Your task to perform on an android device: How much does a 3 bedroom apartment rent for in San Francisco? Image 0: 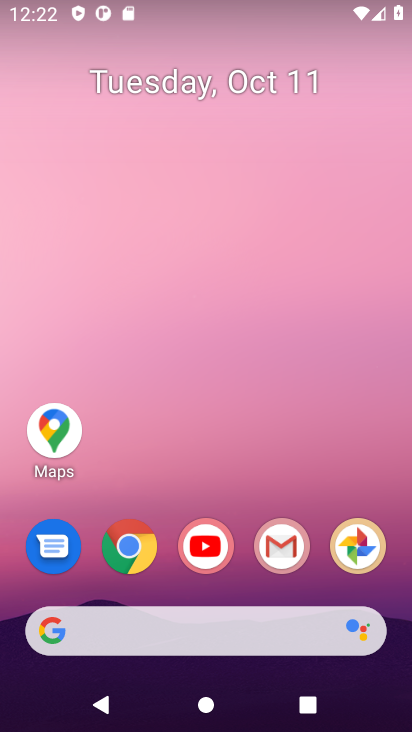
Step 0: click (129, 542)
Your task to perform on an android device: How much does a 3 bedroom apartment rent for in San Francisco? Image 1: 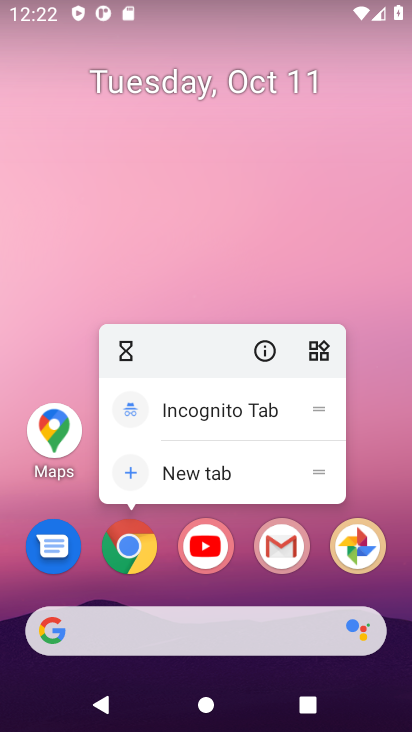
Step 1: click (124, 554)
Your task to perform on an android device: How much does a 3 bedroom apartment rent for in San Francisco? Image 2: 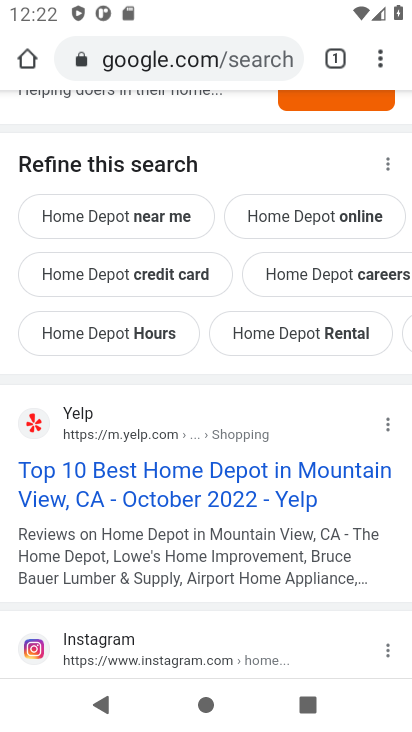
Step 2: click (220, 57)
Your task to perform on an android device: How much does a 3 bedroom apartment rent for in San Francisco? Image 3: 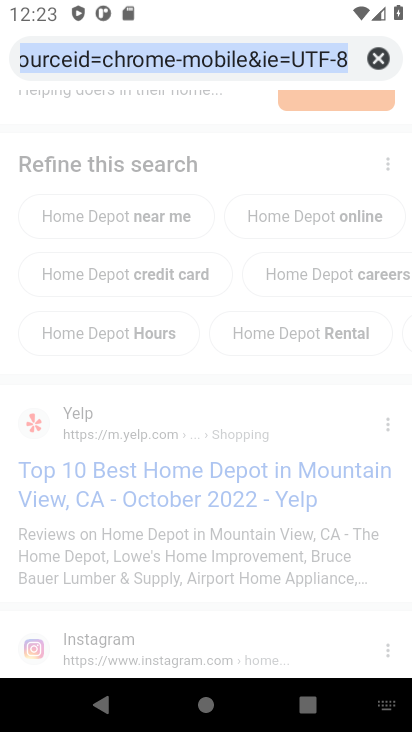
Step 3: type "3 bedroom apartment rent in San Francisco"
Your task to perform on an android device: How much does a 3 bedroom apartment rent for in San Francisco? Image 4: 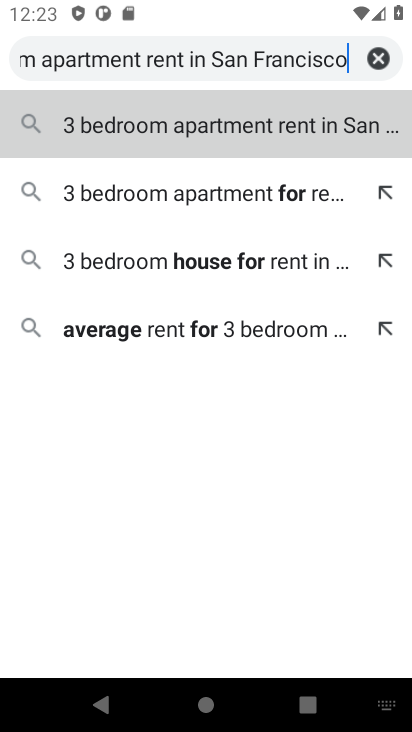
Step 4: type ""
Your task to perform on an android device: How much does a 3 bedroom apartment rent for in San Francisco? Image 5: 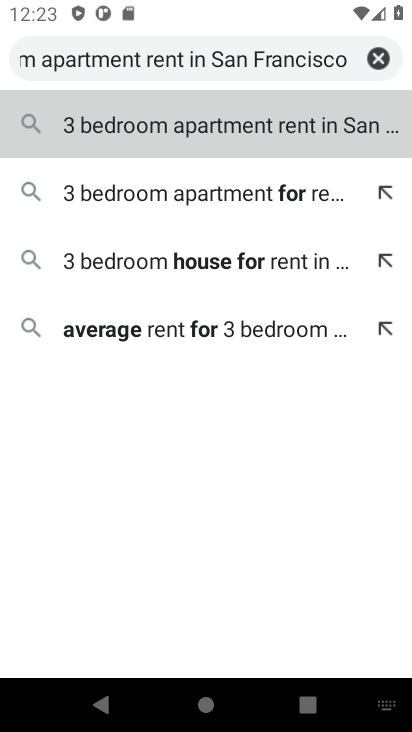
Step 5: press enter
Your task to perform on an android device: How much does a 3 bedroom apartment rent for in San Francisco? Image 6: 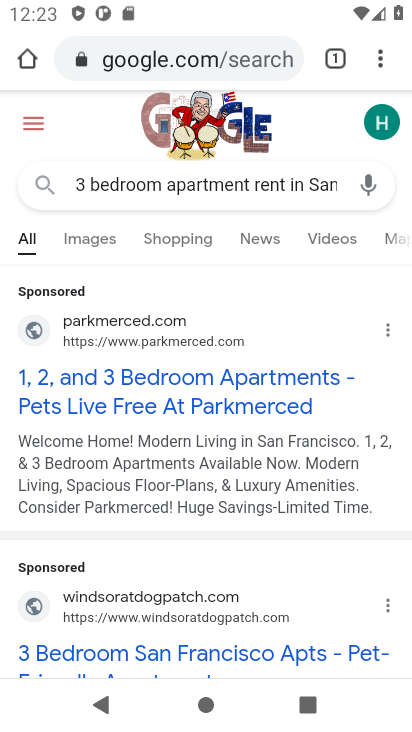
Step 6: drag from (245, 571) to (259, 243)
Your task to perform on an android device: How much does a 3 bedroom apartment rent for in San Francisco? Image 7: 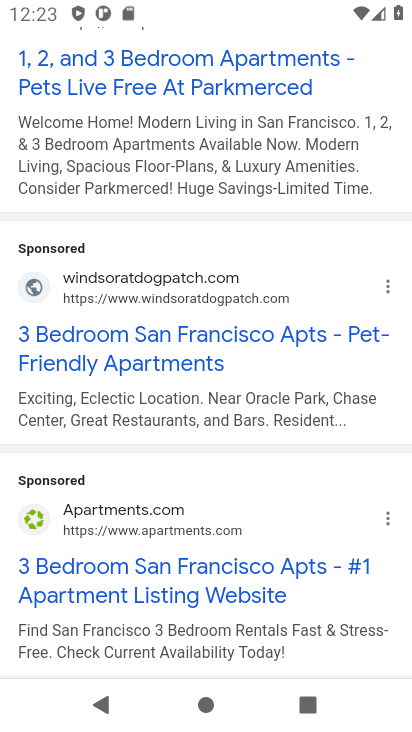
Step 7: click (183, 655)
Your task to perform on an android device: How much does a 3 bedroom apartment rent for in San Francisco? Image 8: 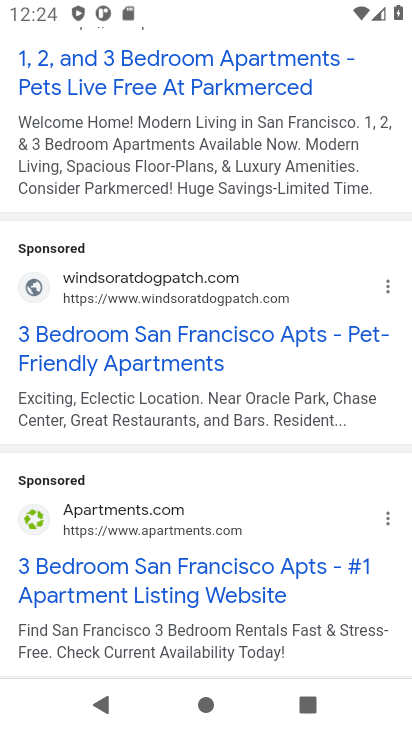
Step 8: click (211, 582)
Your task to perform on an android device: How much does a 3 bedroom apartment rent for in San Francisco? Image 9: 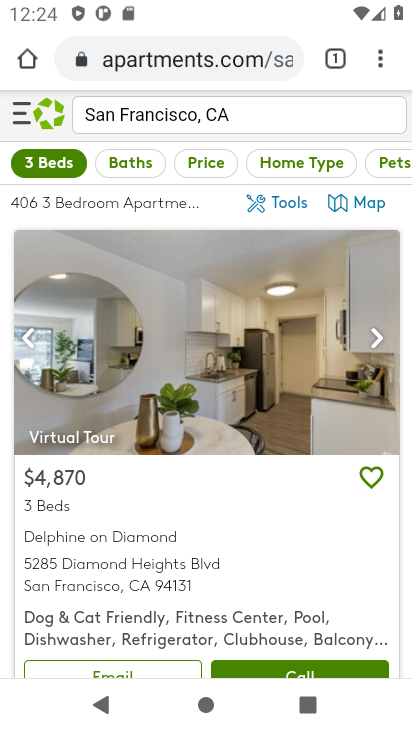
Step 9: drag from (211, 582) to (205, 334)
Your task to perform on an android device: How much does a 3 bedroom apartment rent for in San Francisco? Image 10: 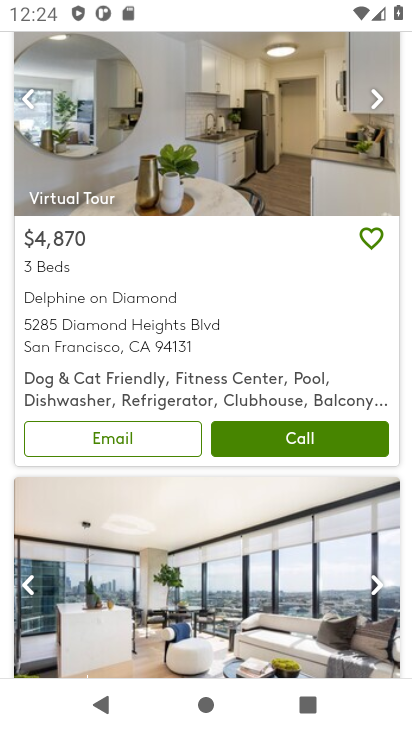
Step 10: drag from (250, 603) to (274, 253)
Your task to perform on an android device: How much does a 3 bedroom apartment rent for in San Francisco? Image 11: 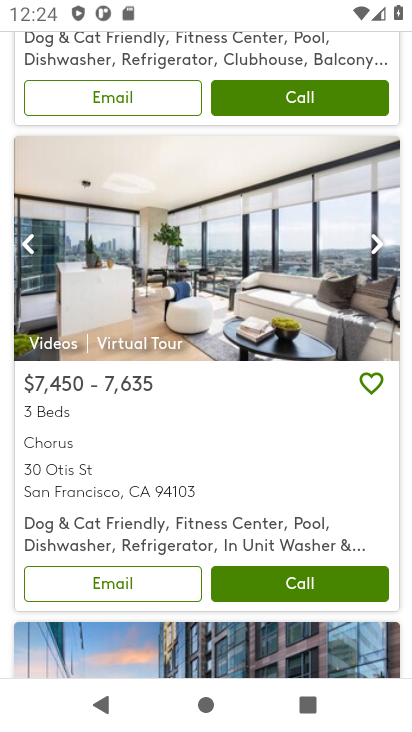
Step 11: click (192, 533)
Your task to perform on an android device: How much does a 3 bedroom apartment rent for in San Francisco? Image 12: 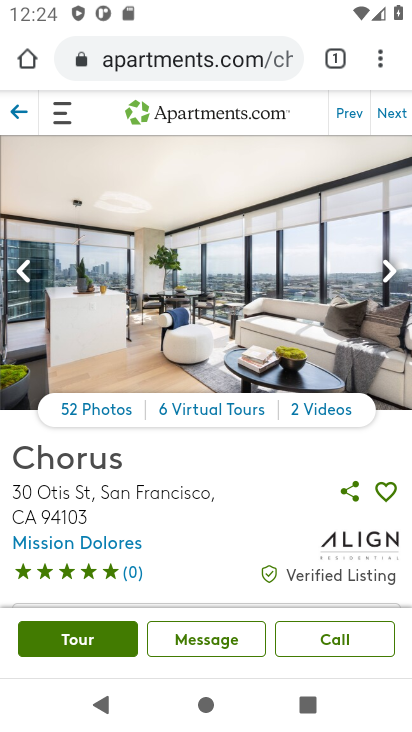
Step 12: click (387, 267)
Your task to perform on an android device: How much does a 3 bedroom apartment rent for in San Francisco? Image 13: 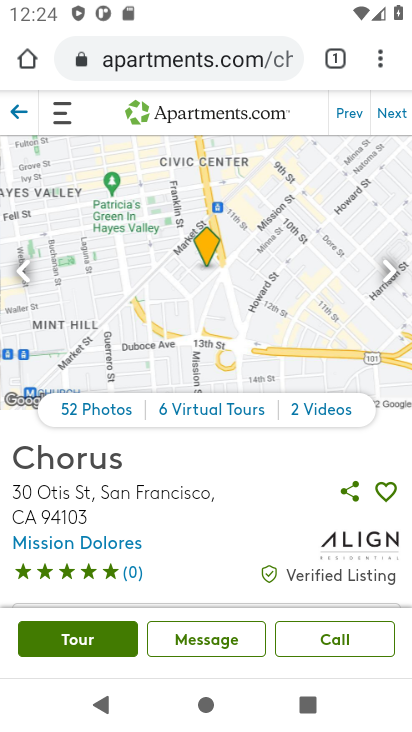
Step 13: click (387, 268)
Your task to perform on an android device: How much does a 3 bedroom apartment rent for in San Francisco? Image 14: 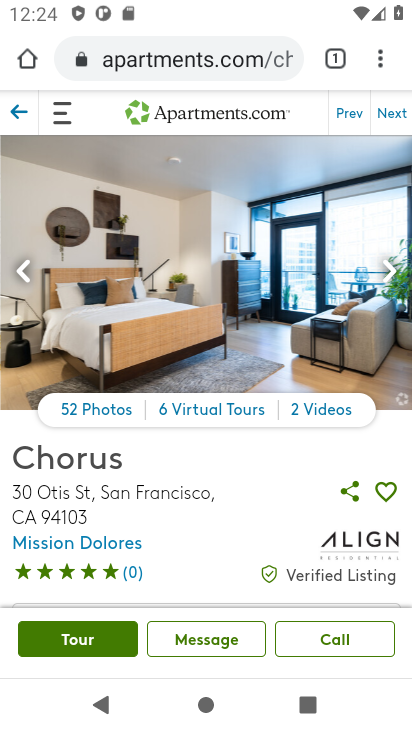
Step 14: click (387, 268)
Your task to perform on an android device: How much does a 3 bedroom apartment rent for in San Francisco? Image 15: 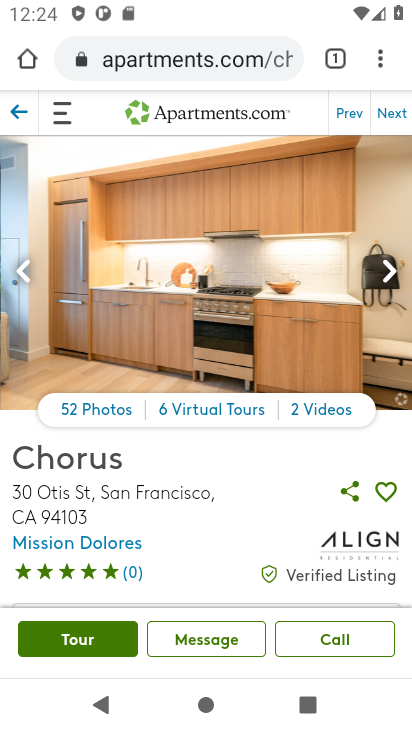
Step 15: click (387, 268)
Your task to perform on an android device: How much does a 3 bedroom apartment rent for in San Francisco? Image 16: 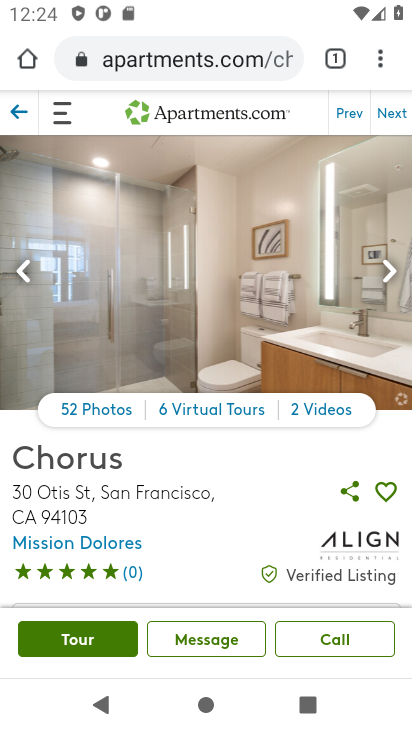
Step 16: click (387, 268)
Your task to perform on an android device: How much does a 3 bedroom apartment rent for in San Francisco? Image 17: 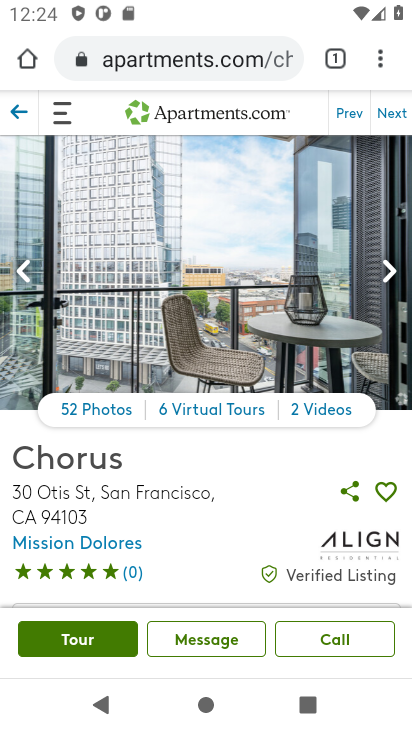
Step 17: press back button
Your task to perform on an android device: How much does a 3 bedroom apartment rent for in San Francisco? Image 18: 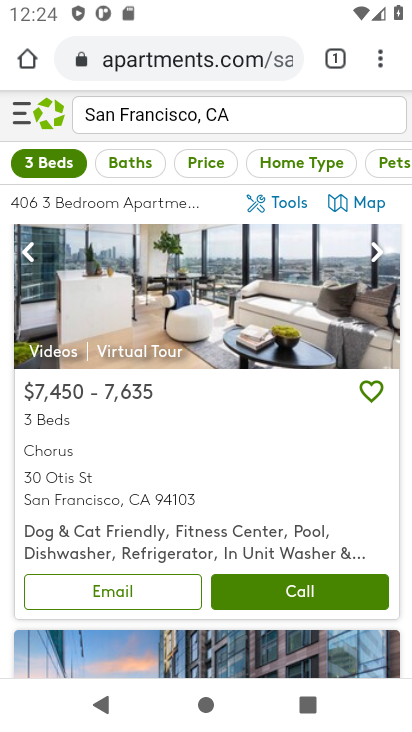
Step 18: drag from (279, 529) to (278, 254)
Your task to perform on an android device: How much does a 3 bedroom apartment rent for in San Francisco? Image 19: 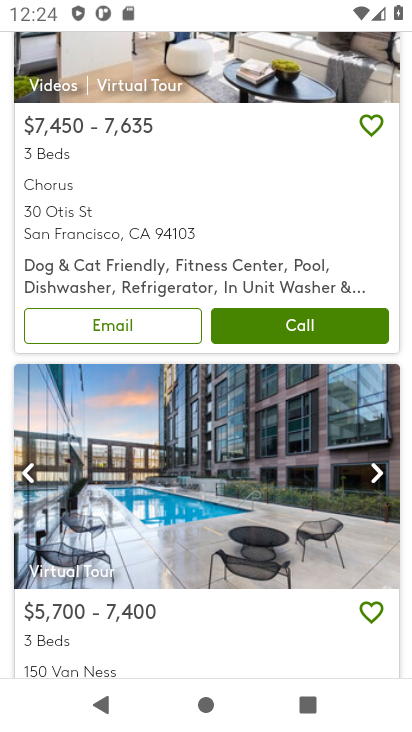
Step 19: click (222, 625)
Your task to perform on an android device: How much does a 3 bedroom apartment rent for in San Francisco? Image 20: 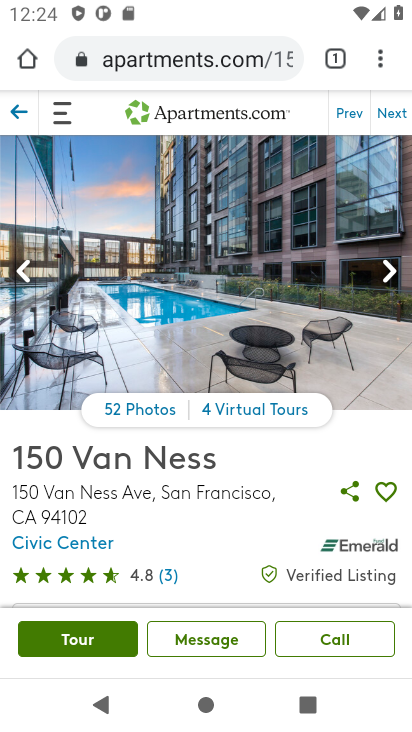
Step 20: click (382, 278)
Your task to perform on an android device: How much does a 3 bedroom apartment rent for in San Francisco? Image 21: 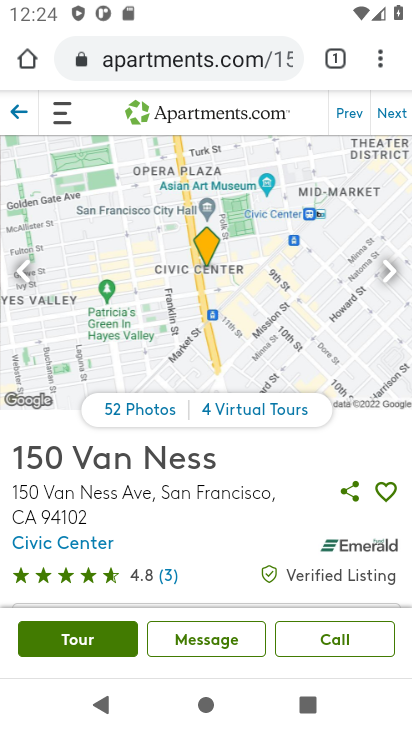
Step 21: click (382, 278)
Your task to perform on an android device: How much does a 3 bedroom apartment rent for in San Francisco? Image 22: 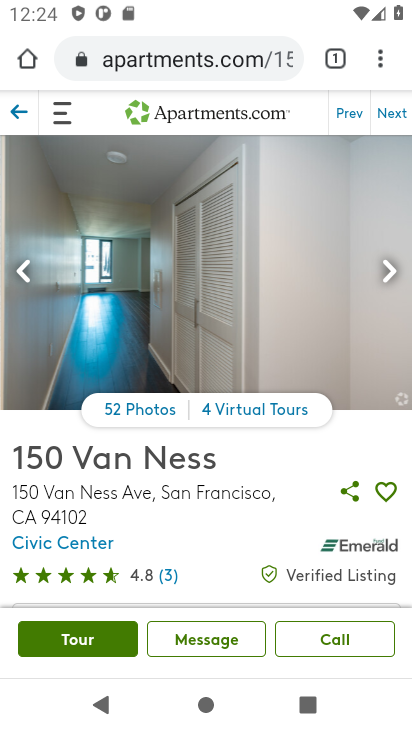
Step 22: click (382, 278)
Your task to perform on an android device: How much does a 3 bedroom apartment rent for in San Francisco? Image 23: 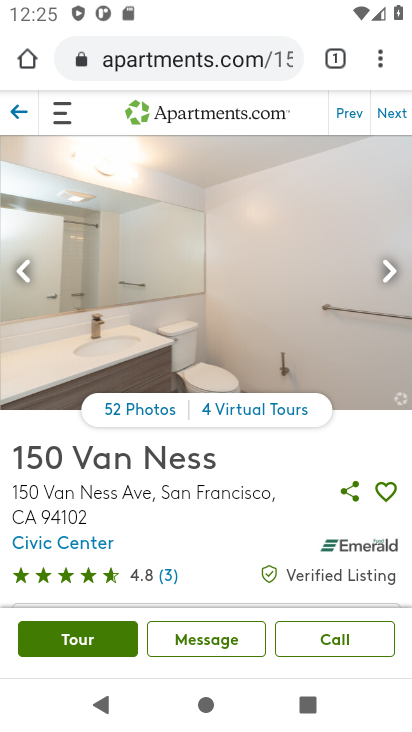
Step 23: click (383, 279)
Your task to perform on an android device: How much does a 3 bedroom apartment rent for in San Francisco? Image 24: 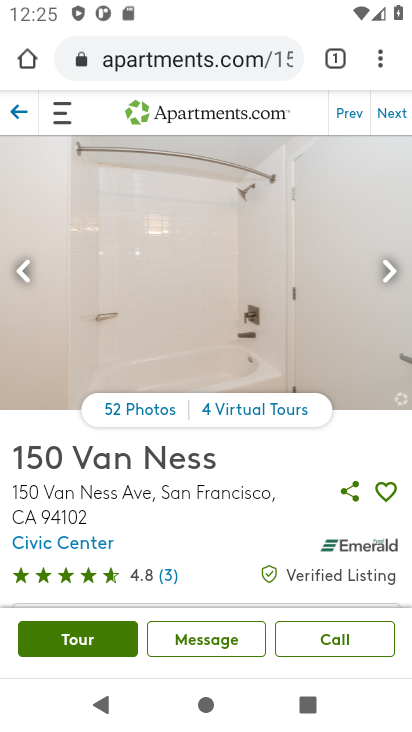
Step 24: click (383, 279)
Your task to perform on an android device: How much does a 3 bedroom apartment rent for in San Francisco? Image 25: 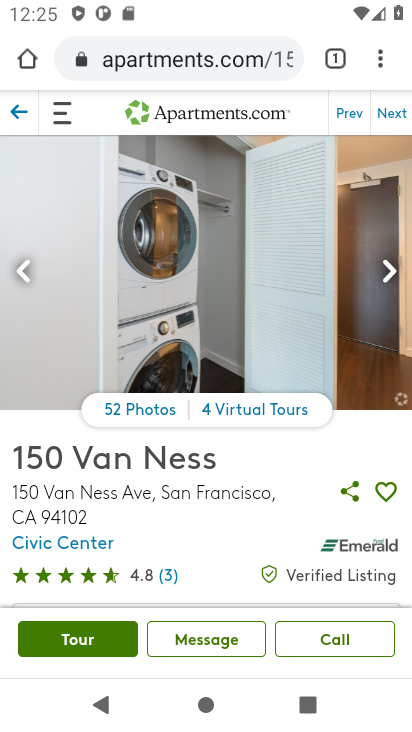
Step 25: press back button
Your task to perform on an android device: How much does a 3 bedroom apartment rent for in San Francisco? Image 26: 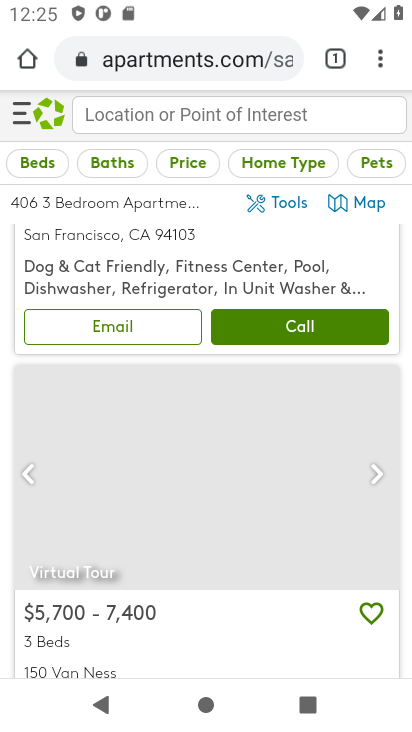
Step 26: drag from (183, 508) to (210, 294)
Your task to perform on an android device: How much does a 3 bedroom apartment rent for in San Francisco? Image 27: 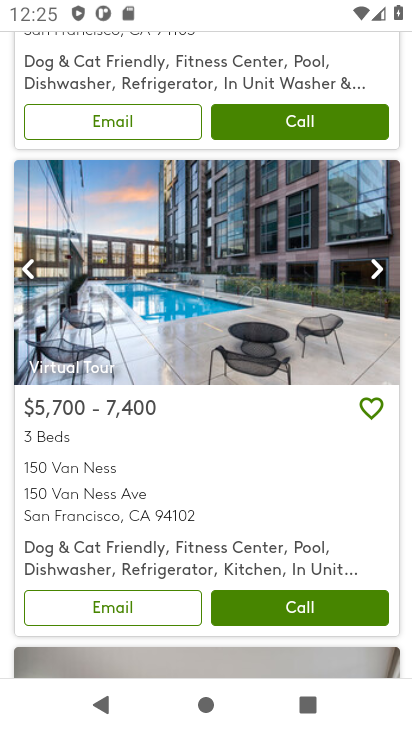
Step 27: drag from (216, 530) to (260, 224)
Your task to perform on an android device: How much does a 3 bedroom apartment rent for in San Francisco? Image 28: 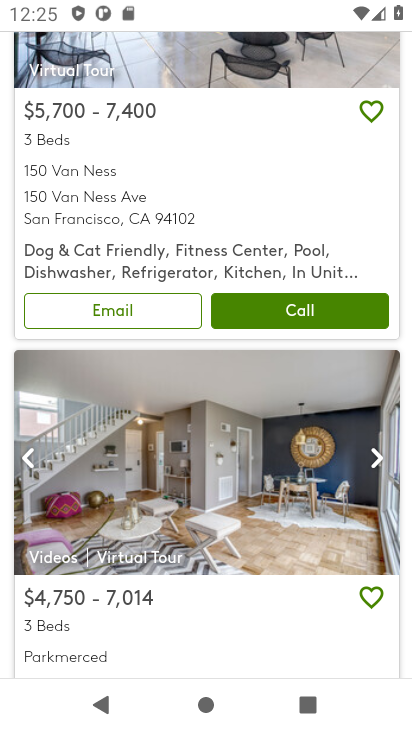
Step 28: drag from (236, 587) to (257, 480)
Your task to perform on an android device: How much does a 3 bedroom apartment rent for in San Francisco? Image 29: 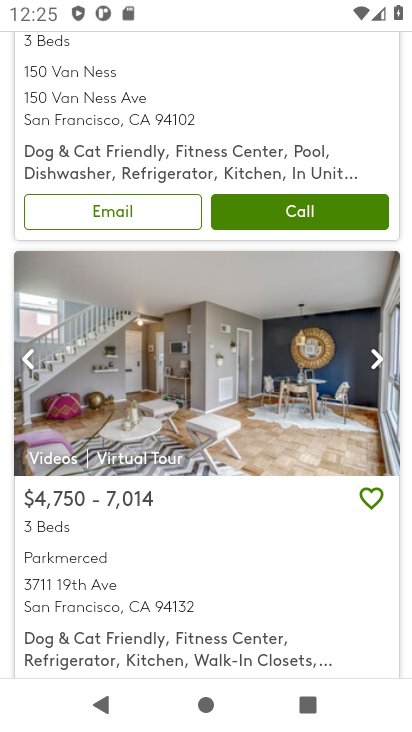
Step 29: click (162, 496)
Your task to perform on an android device: How much does a 3 bedroom apartment rent for in San Francisco? Image 30: 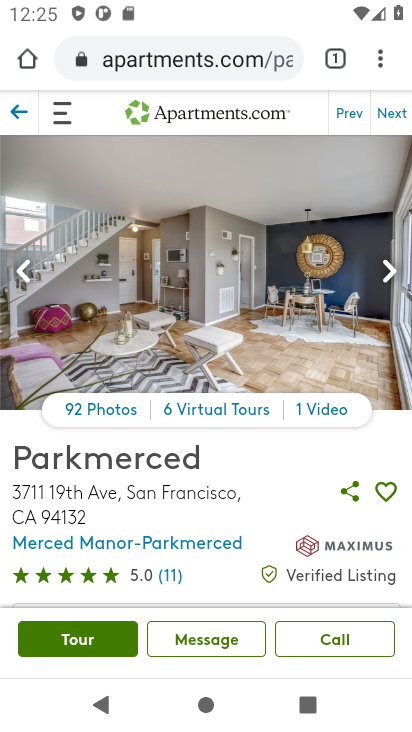
Step 30: click (390, 276)
Your task to perform on an android device: How much does a 3 bedroom apartment rent for in San Francisco? Image 31: 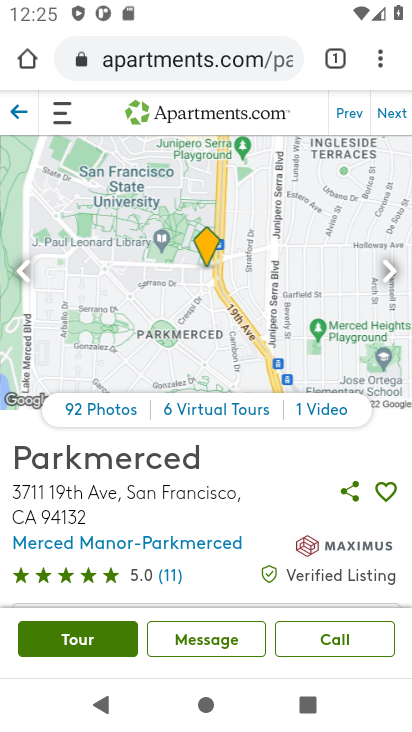
Step 31: click (390, 266)
Your task to perform on an android device: How much does a 3 bedroom apartment rent for in San Francisco? Image 32: 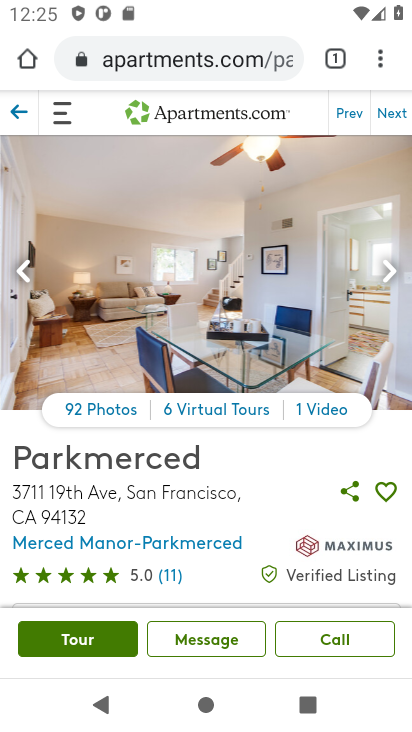
Step 32: click (379, 269)
Your task to perform on an android device: How much does a 3 bedroom apartment rent for in San Francisco? Image 33: 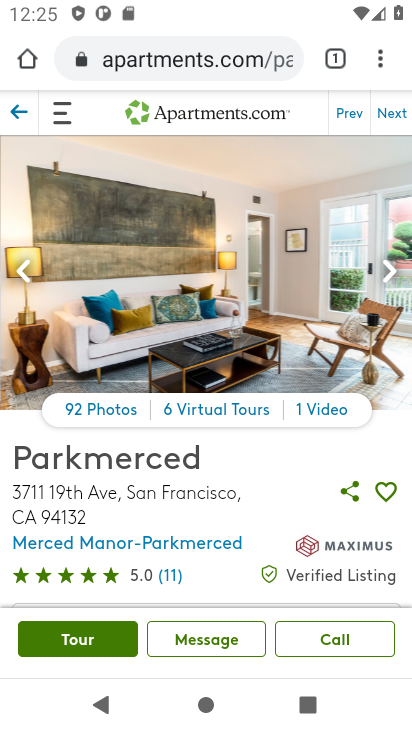
Step 33: click (380, 269)
Your task to perform on an android device: How much does a 3 bedroom apartment rent for in San Francisco? Image 34: 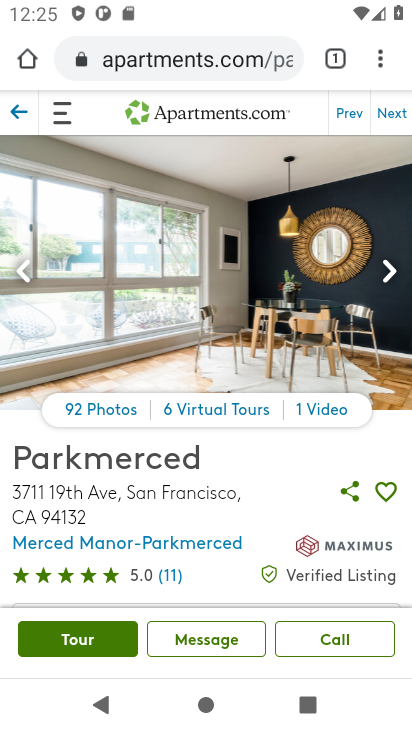
Step 34: task complete